Your task to perform on an android device: Open Android settings Image 0: 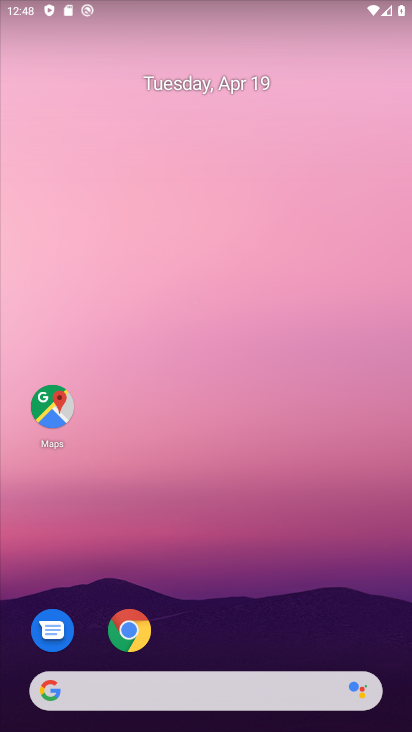
Step 0: click (287, 95)
Your task to perform on an android device: Open Android settings Image 1: 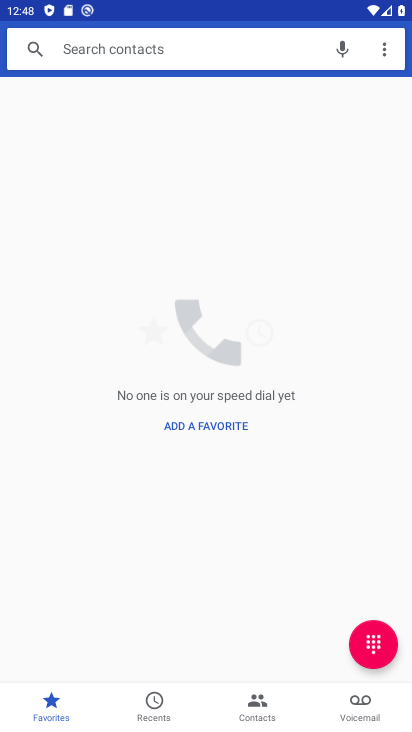
Step 1: press back button
Your task to perform on an android device: Open Android settings Image 2: 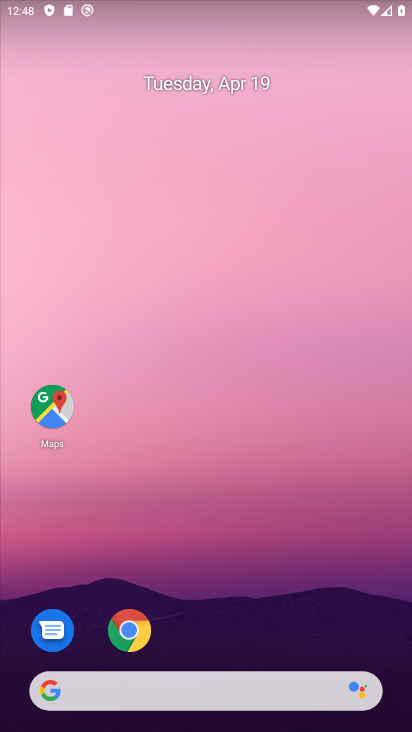
Step 2: drag from (195, 676) to (279, 39)
Your task to perform on an android device: Open Android settings Image 3: 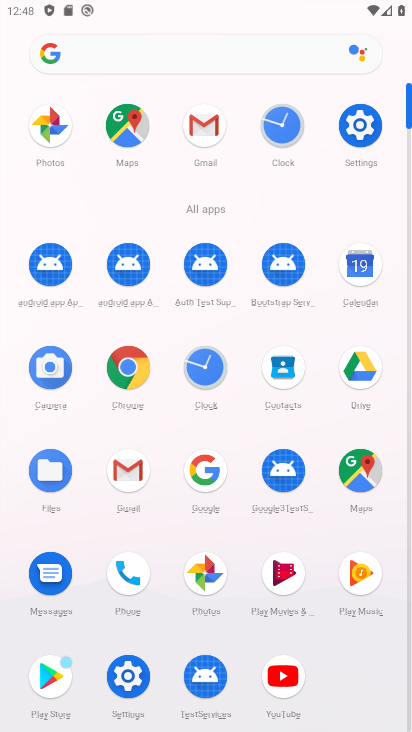
Step 3: click (139, 695)
Your task to perform on an android device: Open Android settings Image 4: 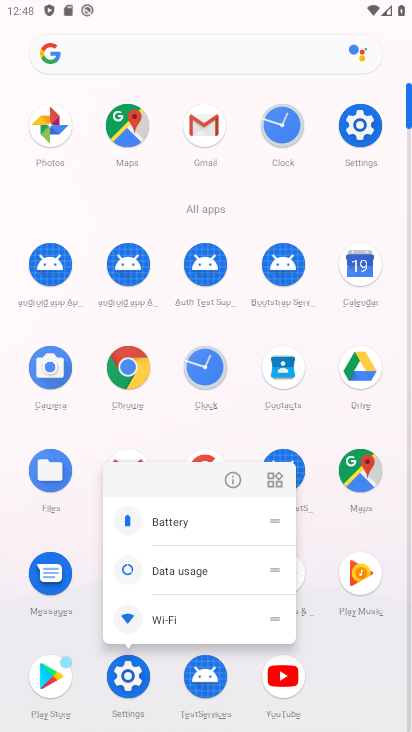
Step 4: click (125, 680)
Your task to perform on an android device: Open Android settings Image 5: 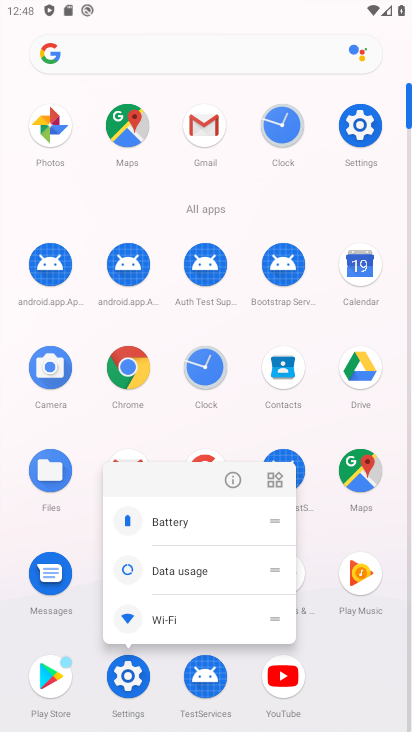
Step 5: click (124, 679)
Your task to perform on an android device: Open Android settings Image 6: 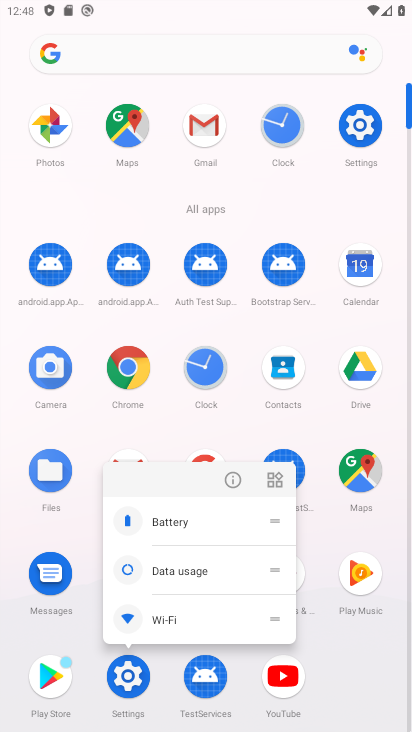
Step 6: click (127, 679)
Your task to perform on an android device: Open Android settings Image 7: 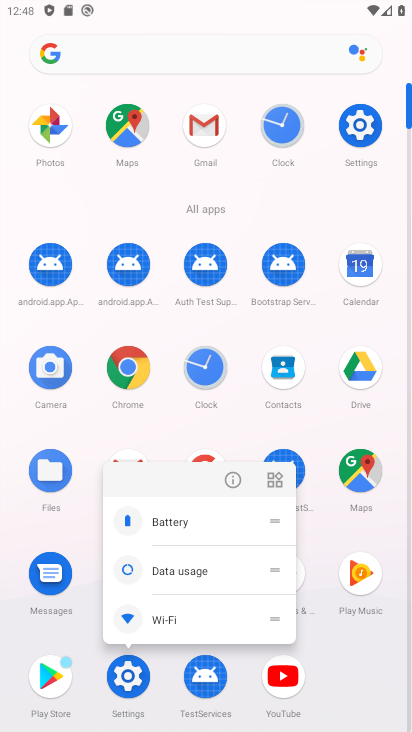
Step 7: click (125, 676)
Your task to perform on an android device: Open Android settings Image 8: 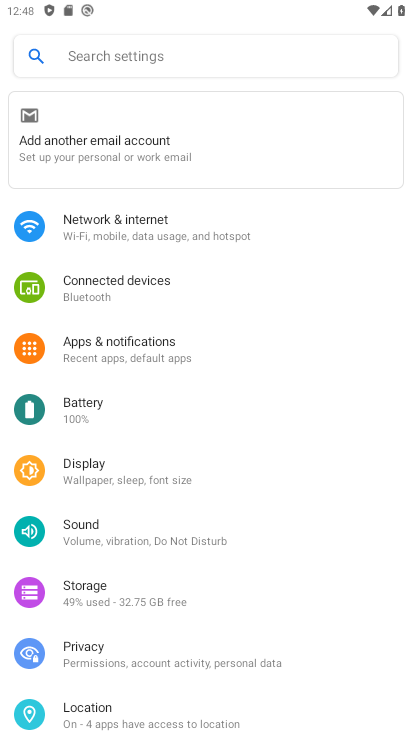
Step 8: task complete